Your task to perform on an android device: Open Youtube and go to the subscriptions tab Image 0: 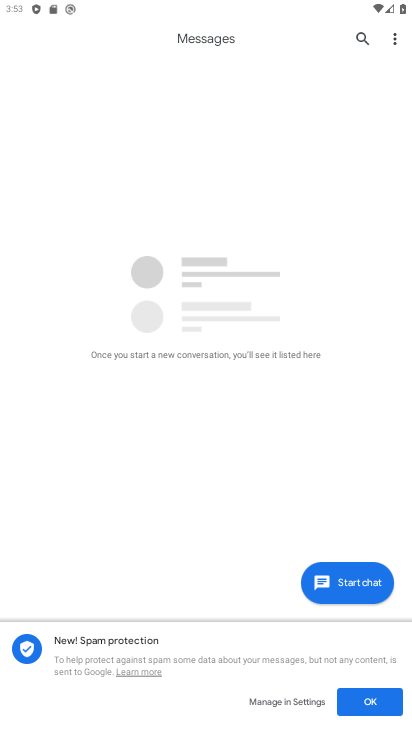
Step 0: press home button
Your task to perform on an android device: Open Youtube and go to the subscriptions tab Image 1: 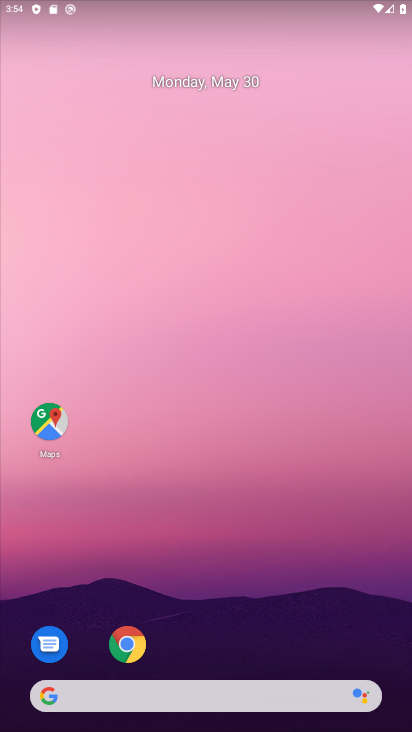
Step 1: drag from (239, 628) to (250, 19)
Your task to perform on an android device: Open Youtube and go to the subscriptions tab Image 2: 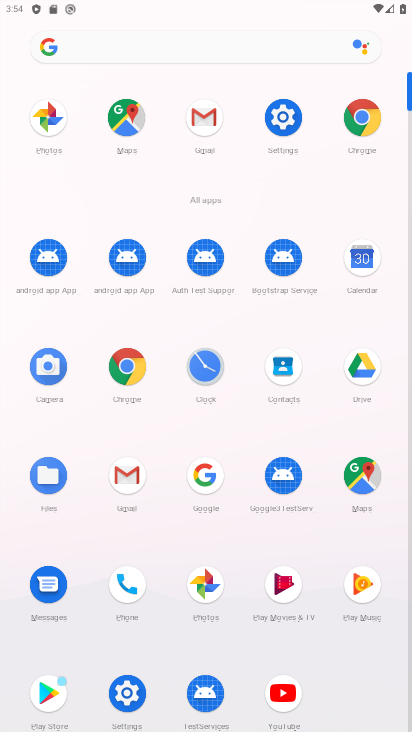
Step 2: click (283, 683)
Your task to perform on an android device: Open Youtube and go to the subscriptions tab Image 3: 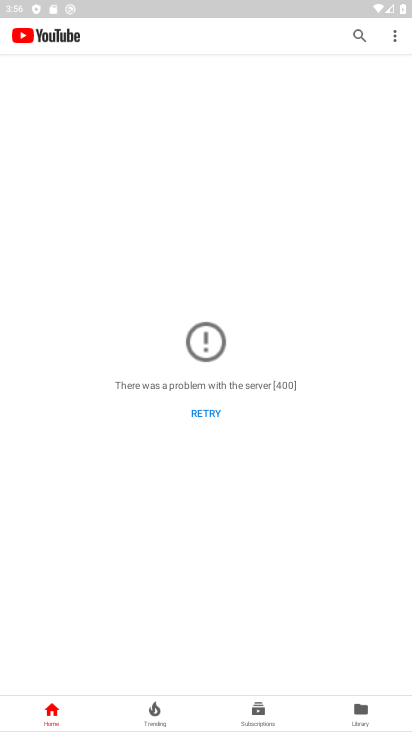
Step 3: task complete